Your task to perform on an android device: Open sound settings Image 0: 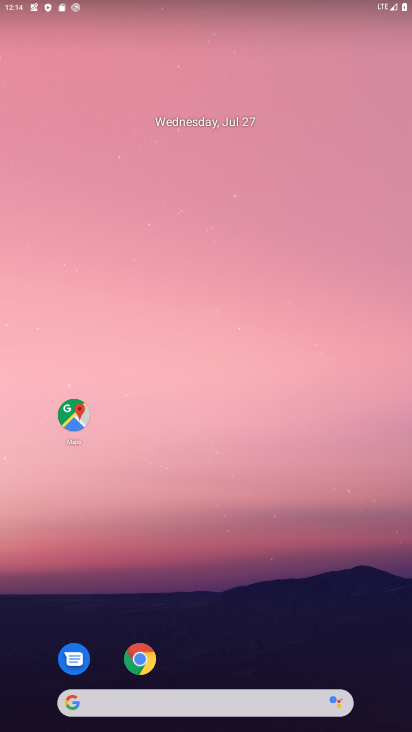
Step 0: drag from (217, 662) to (289, 0)
Your task to perform on an android device: Open sound settings Image 1: 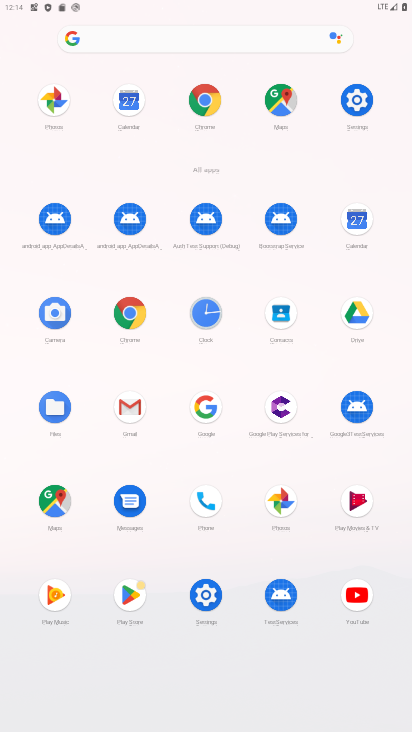
Step 1: click (357, 110)
Your task to perform on an android device: Open sound settings Image 2: 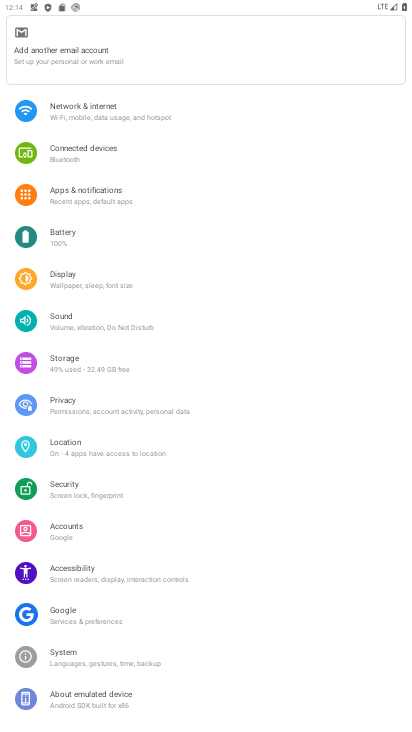
Step 2: click (95, 314)
Your task to perform on an android device: Open sound settings Image 3: 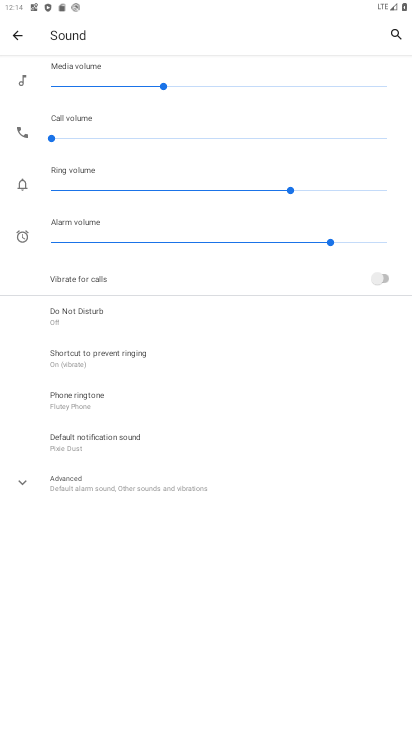
Step 3: task complete